Your task to perform on an android device: Clear the cart on ebay.com. Search for razer naga on ebay.com, select the first entry, and add it to the cart. Image 0: 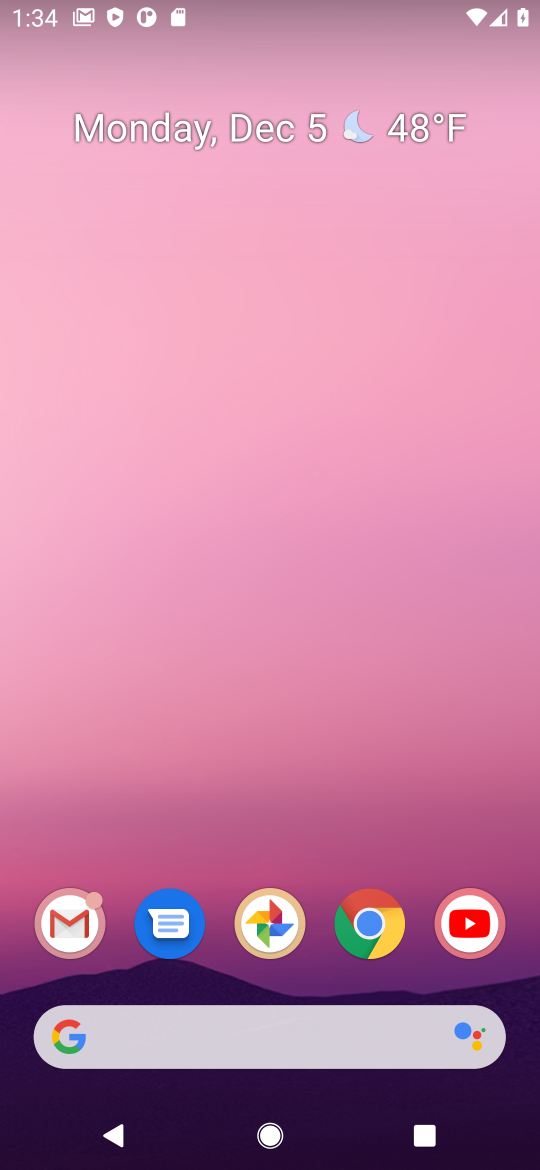
Step 0: click (201, 1031)
Your task to perform on an android device: Clear the cart on ebay.com. Search for razer naga on ebay.com, select the first entry, and add it to the cart. Image 1: 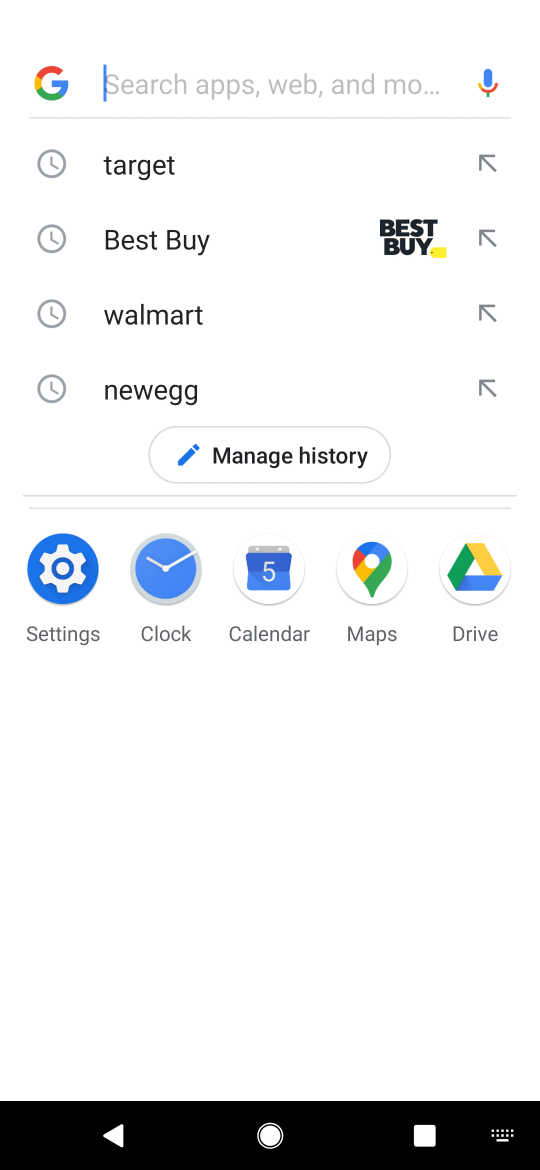
Step 1: task complete